Your task to perform on an android device: Open Chrome and go to settings Image 0: 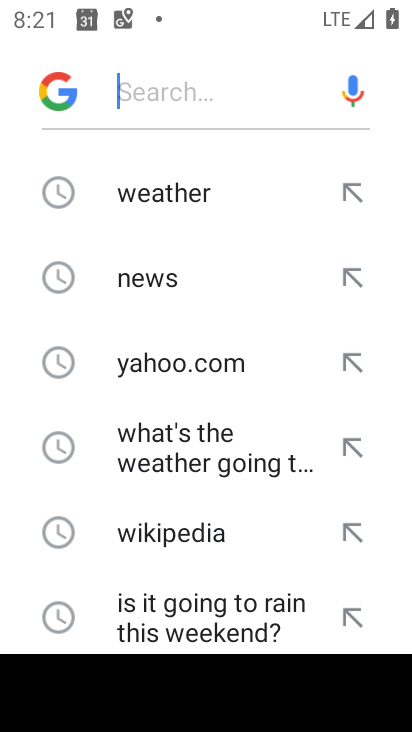
Step 0: press home button
Your task to perform on an android device: Open Chrome and go to settings Image 1: 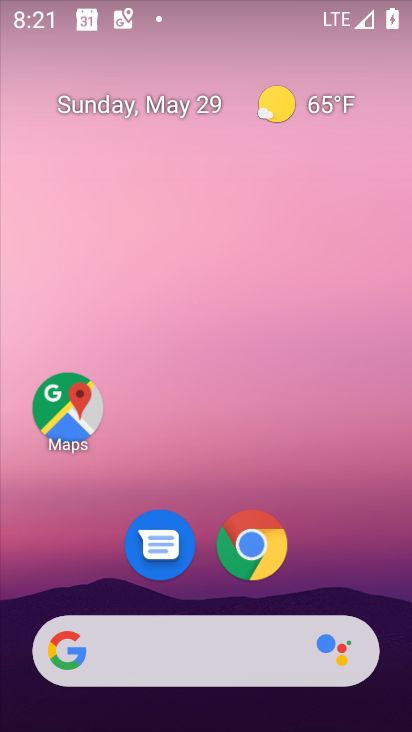
Step 1: click (252, 548)
Your task to perform on an android device: Open Chrome and go to settings Image 2: 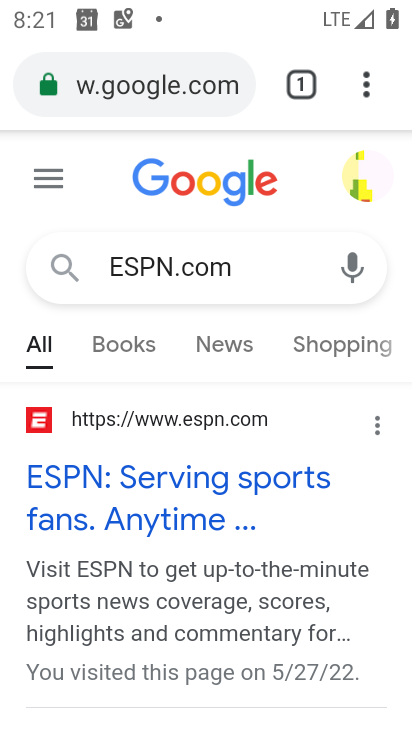
Step 2: click (367, 79)
Your task to perform on an android device: Open Chrome and go to settings Image 3: 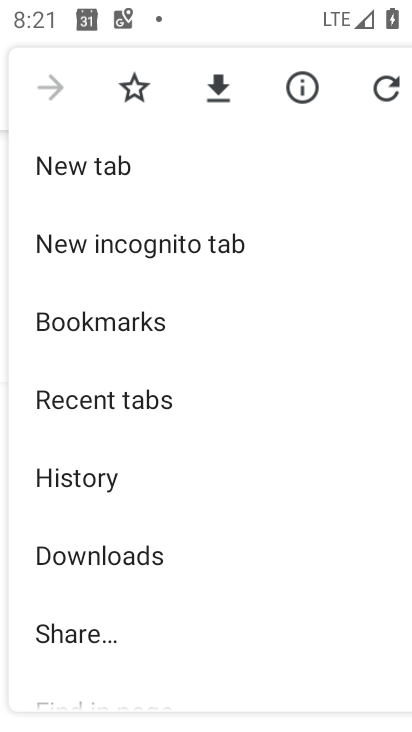
Step 3: drag from (174, 481) to (219, 189)
Your task to perform on an android device: Open Chrome and go to settings Image 4: 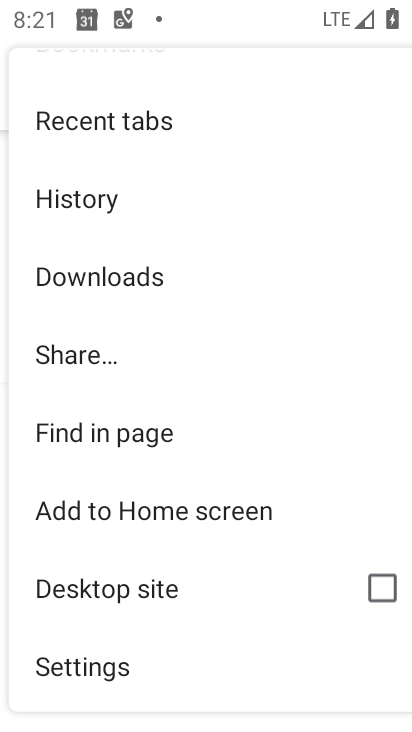
Step 4: click (124, 670)
Your task to perform on an android device: Open Chrome and go to settings Image 5: 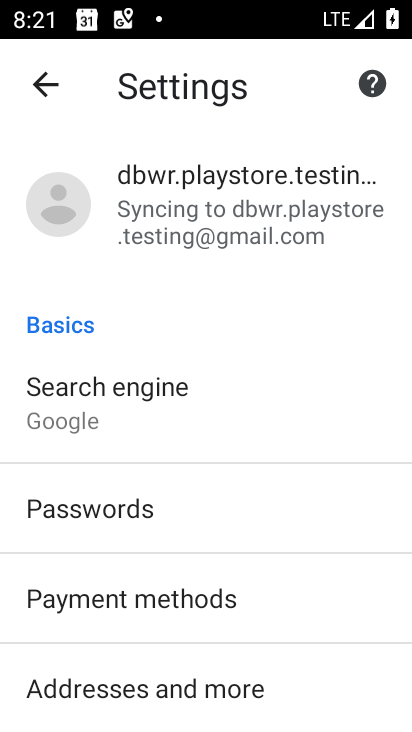
Step 5: task complete